Your task to perform on an android device: Is it going to rain this weekend? Image 0: 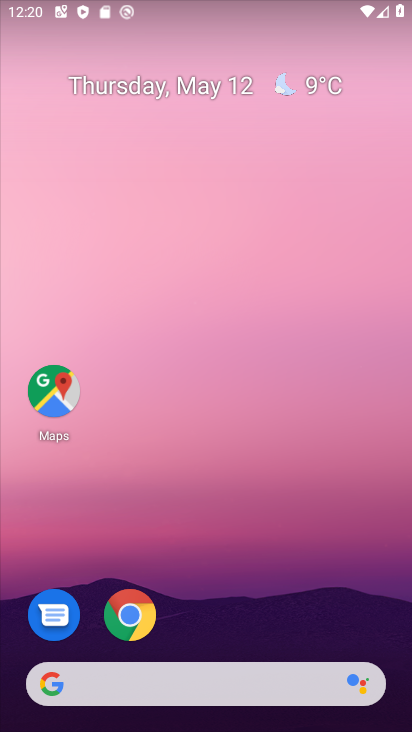
Step 0: click (335, 84)
Your task to perform on an android device: Is it going to rain this weekend? Image 1: 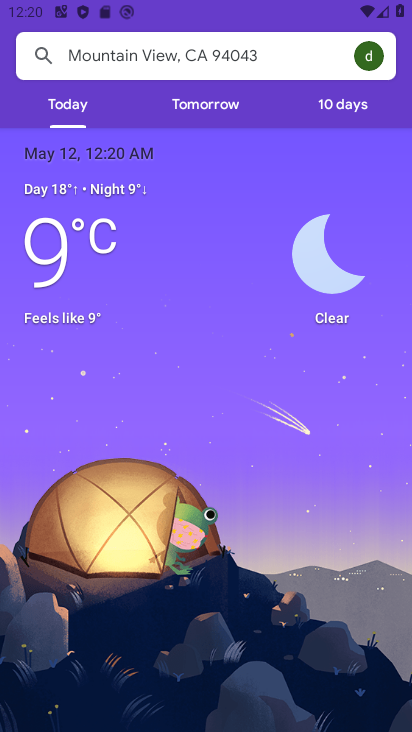
Step 1: click (335, 112)
Your task to perform on an android device: Is it going to rain this weekend? Image 2: 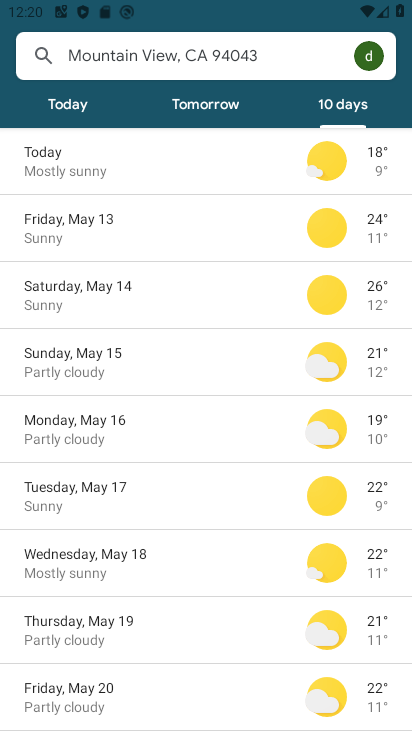
Step 2: task complete